Your task to perform on an android device: Go to Wikipedia Image 0: 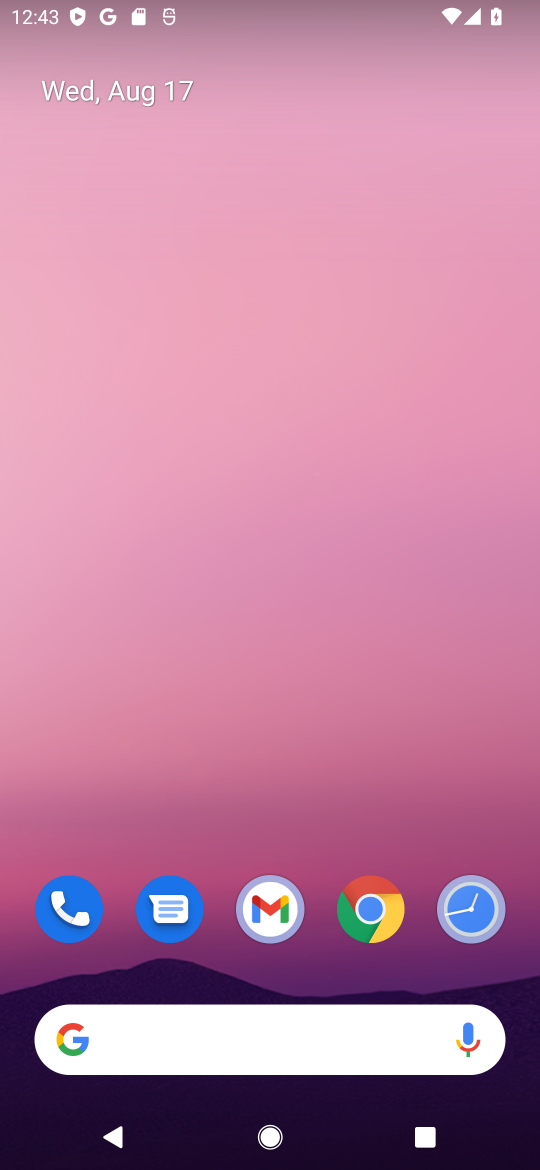
Step 0: click (369, 914)
Your task to perform on an android device: Go to Wikipedia Image 1: 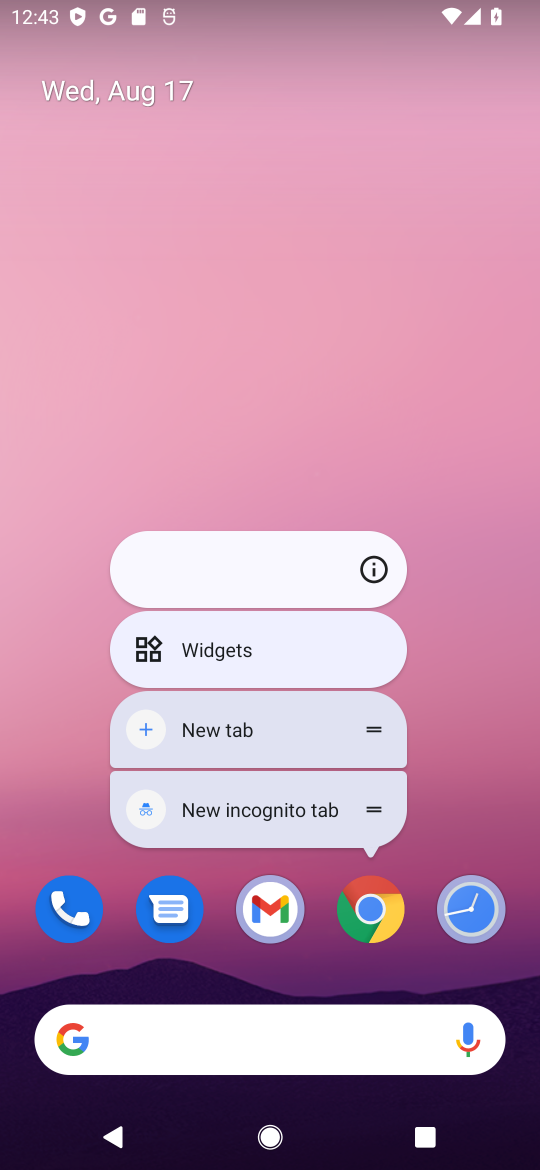
Step 1: click (252, 412)
Your task to perform on an android device: Go to Wikipedia Image 2: 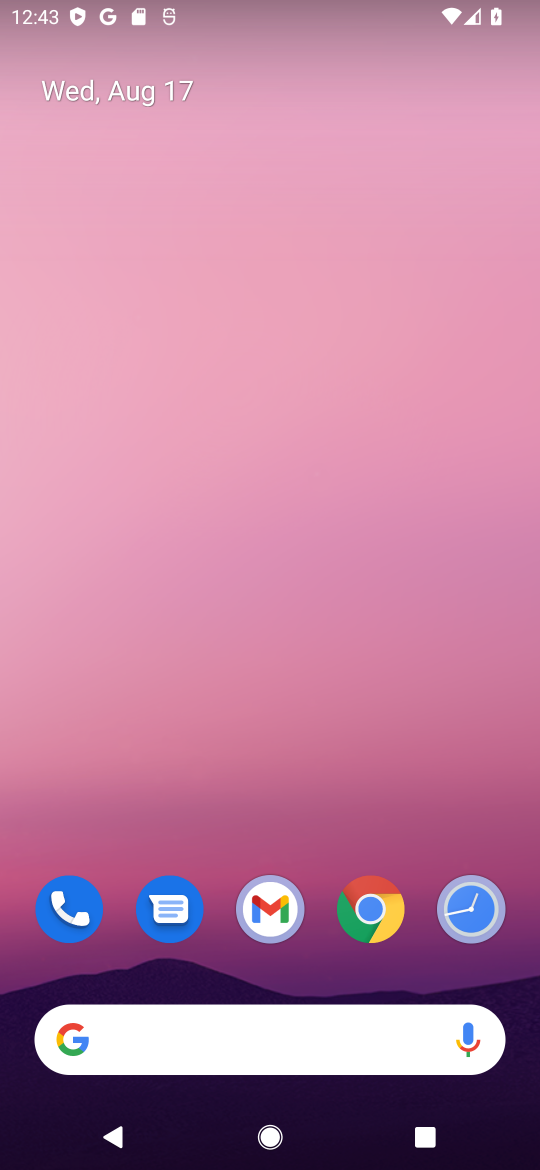
Step 2: click (373, 914)
Your task to perform on an android device: Go to Wikipedia Image 3: 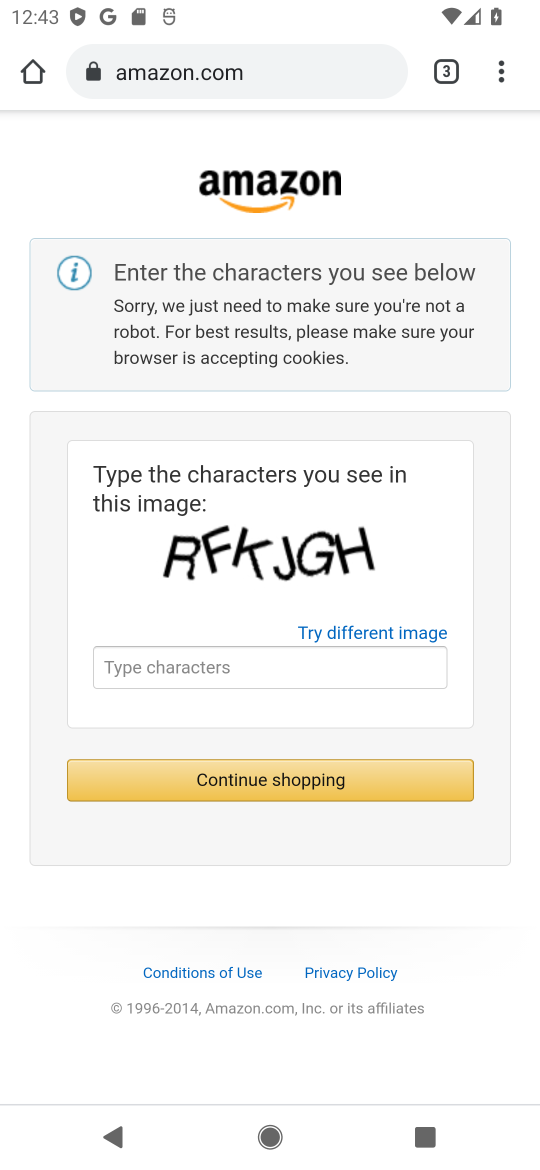
Step 3: click (494, 67)
Your task to perform on an android device: Go to Wikipedia Image 4: 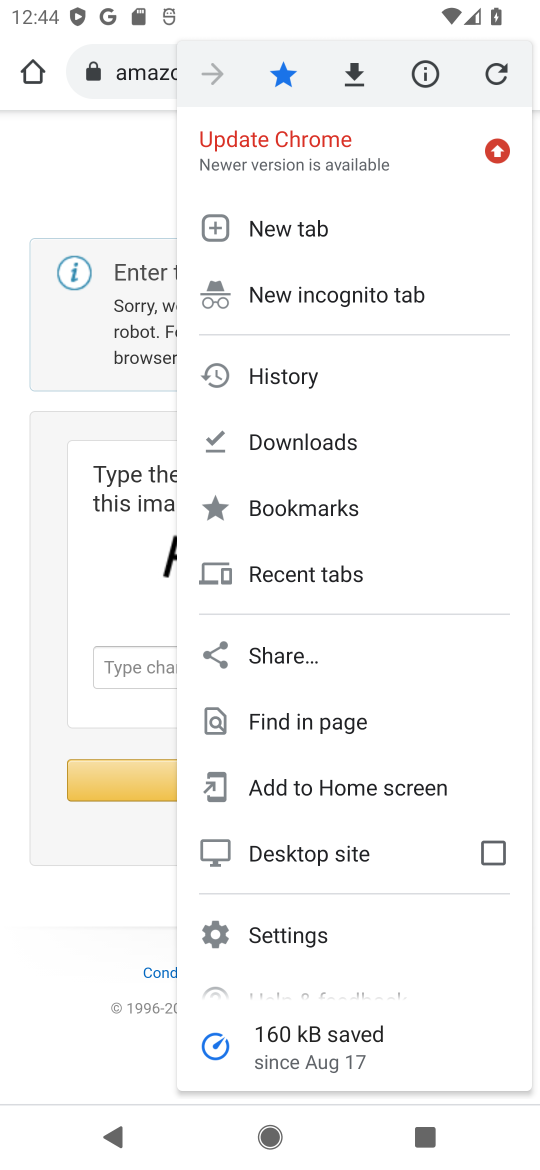
Step 4: click (286, 232)
Your task to perform on an android device: Go to Wikipedia Image 5: 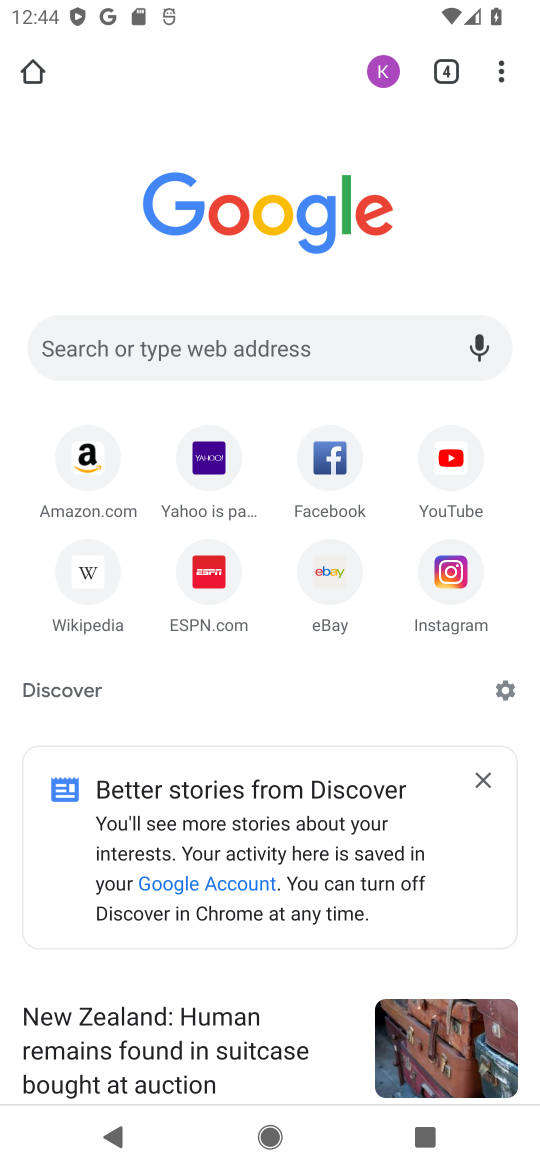
Step 5: click (83, 577)
Your task to perform on an android device: Go to Wikipedia Image 6: 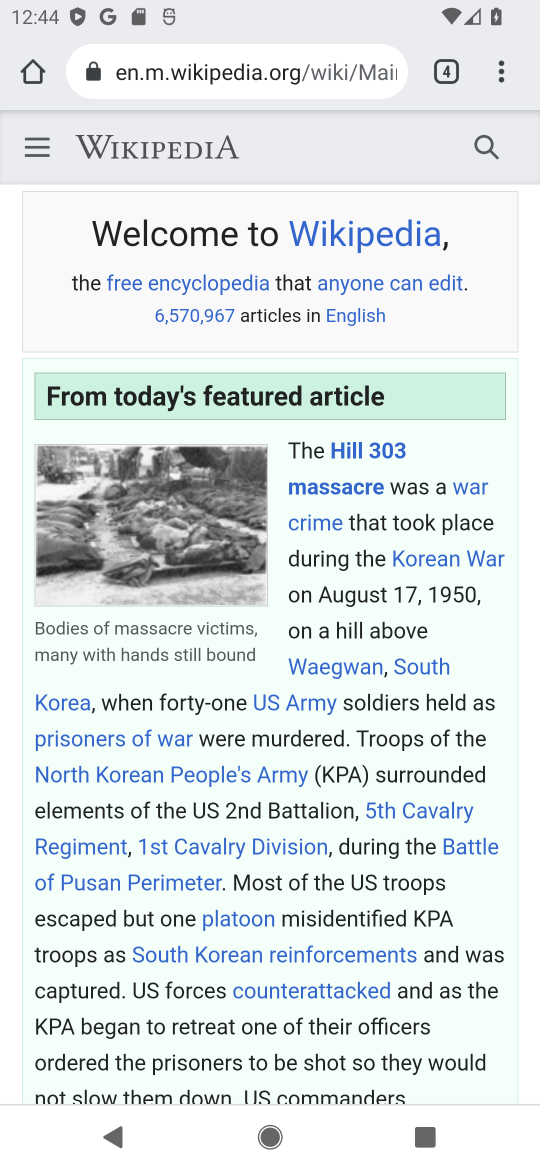
Step 6: task complete